Your task to perform on an android device: uninstall "Indeed Job Search" Image 0: 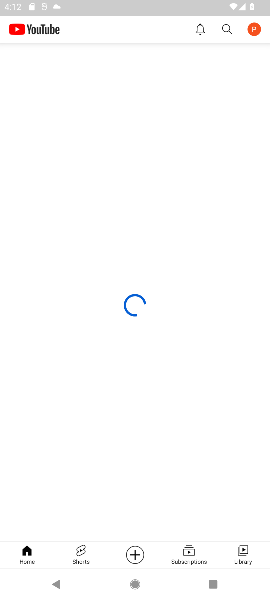
Step 0: drag from (156, 382) to (178, 210)
Your task to perform on an android device: uninstall "Indeed Job Search" Image 1: 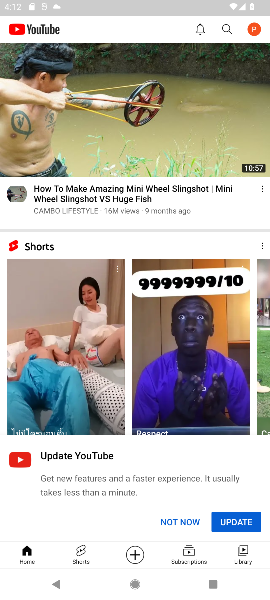
Step 1: press home button
Your task to perform on an android device: uninstall "Indeed Job Search" Image 2: 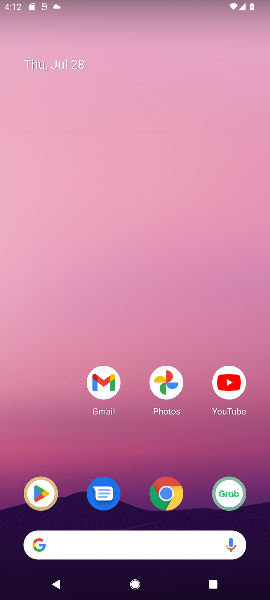
Step 2: click (41, 489)
Your task to perform on an android device: uninstall "Indeed Job Search" Image 3: 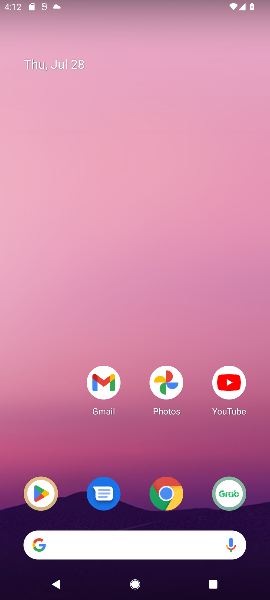
Step 3: click (37, 490)
Your task to perform on an android device: uninstall "Indeed Job Search" Image 4: 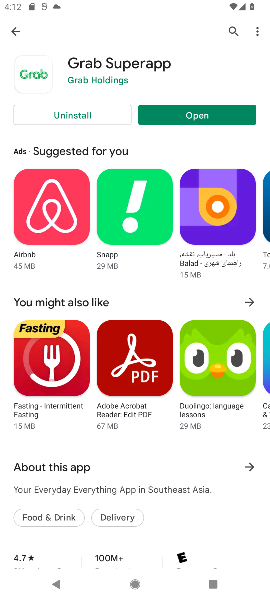
Step 4: click (38, 490)
Your task to perform on an android device: uninstall "Indeed Job Search" Image 5: 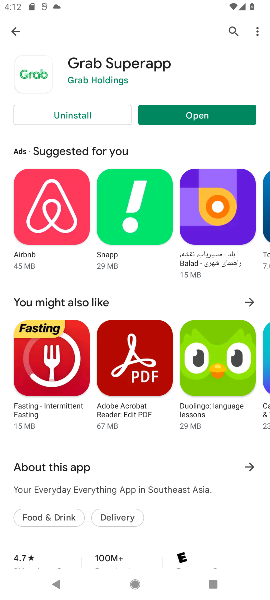
Step 5: drag from (42, 482) to (168, 201)
Your task to perform on an android device: uninstall "Indeed Job Search" Image 6: 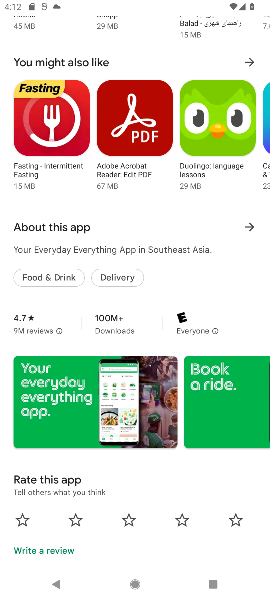
Step 6: drag from (163, 218) to (87, 430)
Your task to perform on an android device: uninstall "Indeed Job Search" Image 7: 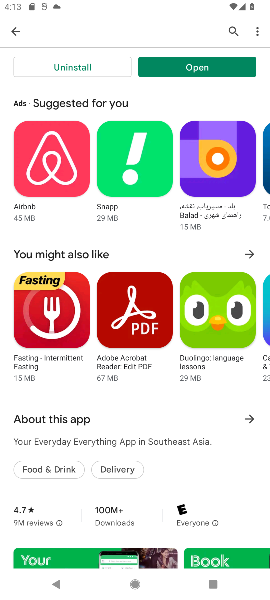
Step 7: drag from (131, 95) to (96, 597)
Your task to perform on an android device: uninstall "Indeed Job Search" Image 8: 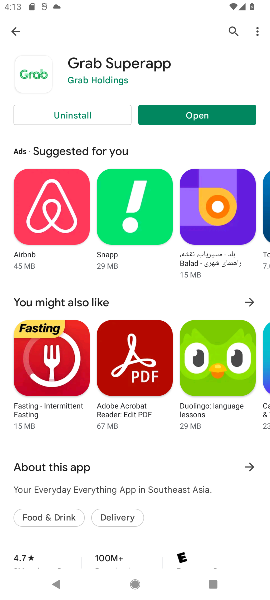
Step 8: click (235, 41)
Your task to perform on an android device: uninstall "Indeed Job Search" Image 9: 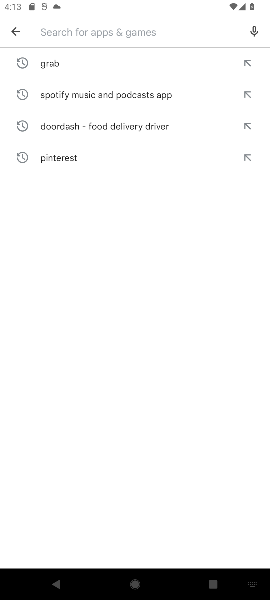
Step 9: type "Indeed Job Search"
Your task to perform on an android device: uninstall "Indeed Job Search" Image 10: 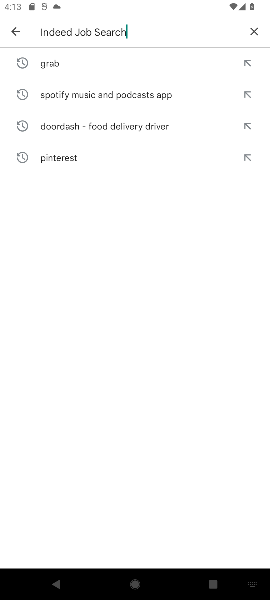
Step 10: type ""
Your task to perform on an android device: uninstall "Indeed Job Search" Image 11: 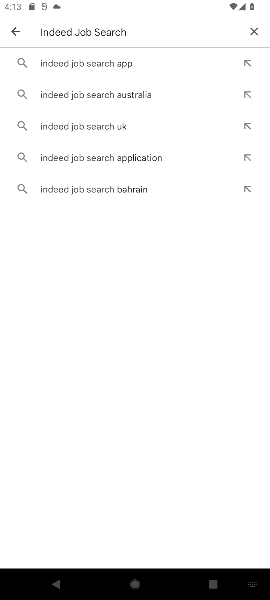
Step 11: click (118, 61)
Your task to perform on an android device: uninstall "Indeed Job Search" Image 12: 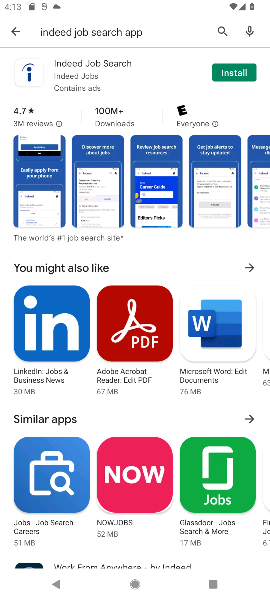
Step 12: click (64, 62)
Your task to perform on an android device: uninstall "Indeed Job Search" Image 13: 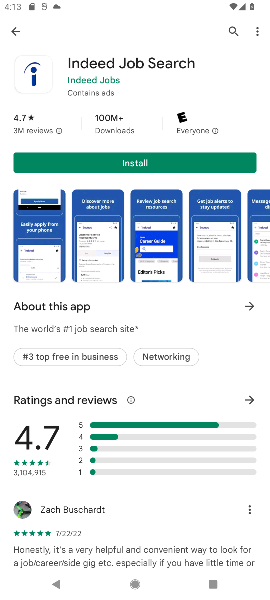
Step 13: task complete